Your task to perform on an android device: Go to settings Image 0: 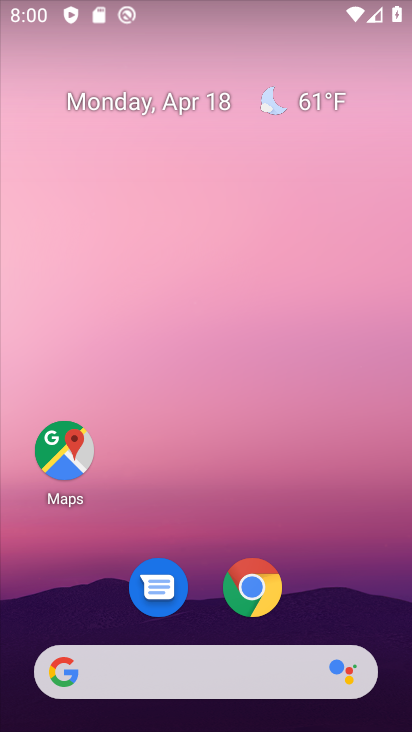
Step 0: click (253, 306)
Your task to perform on an android device: Go to settings Image 1: 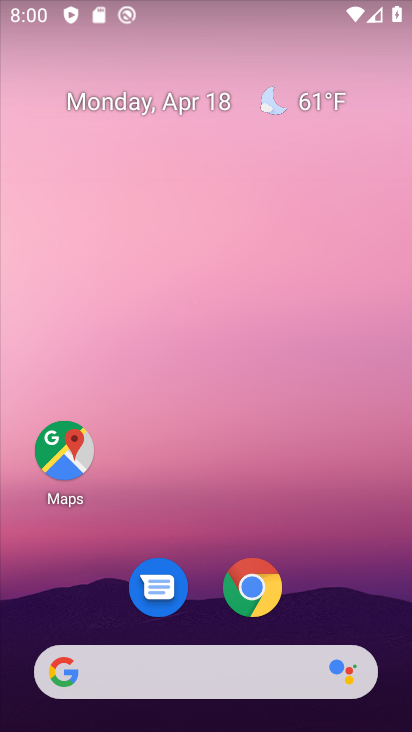
Step 1: drag from (275, 277) to (288, 202)
Your task to perform on an android device: Go to settings Image 2: 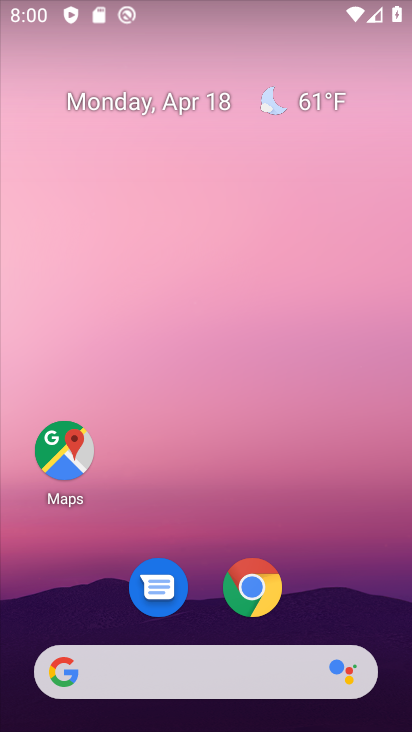
Step 2: drag from (226, 629) to (272, 293)
Your task to perform on an android device: Go to settings Image 3: 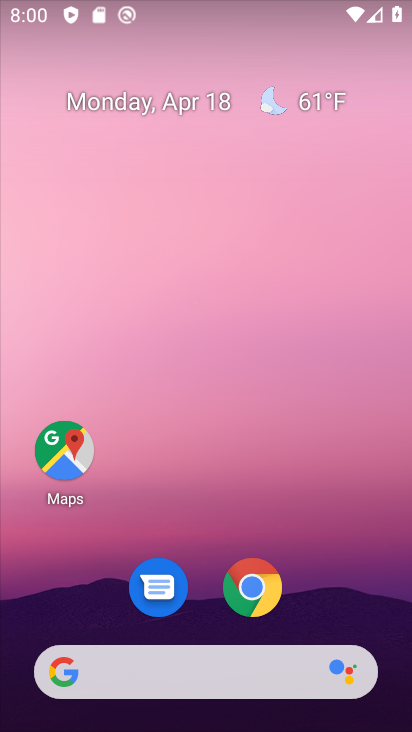
Step 3: drag from (240, 557) to (240, 324)
Your task to perform on an android device: Go to settings Image 4: 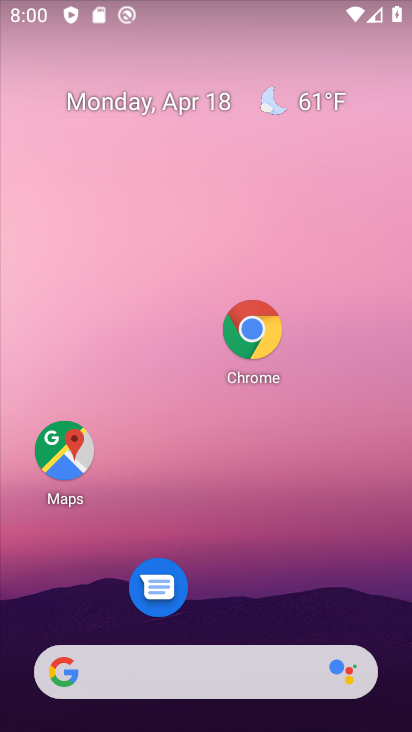
Step 4: click (219, 350)
Your task to perform on an android device: Go to settings Image 5: 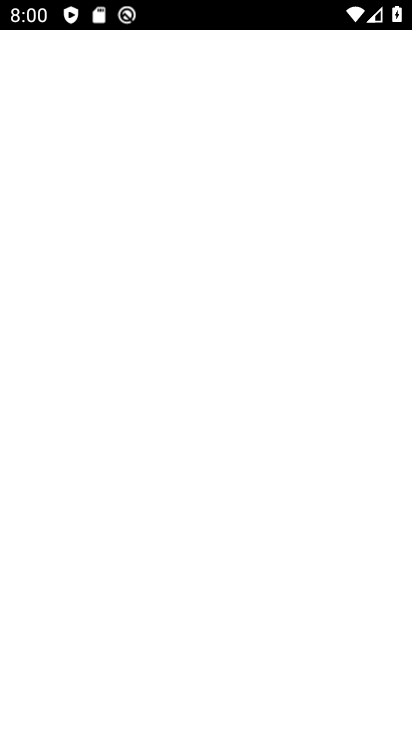
Step 5: click (247, 269)
Your task to perform on an android device: Go to settings Image 6: 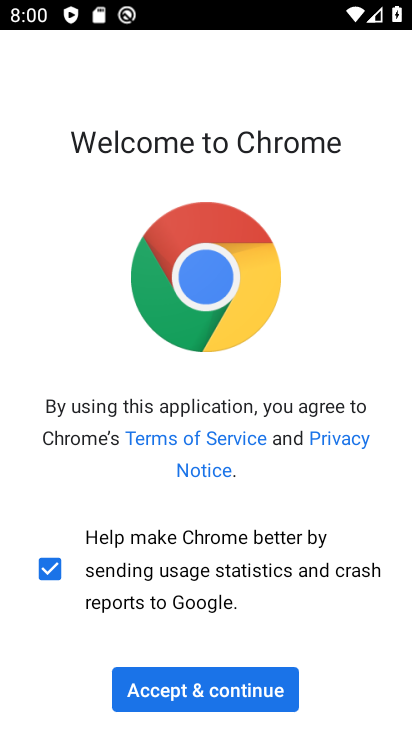
Step 6: press home button
Your task to perform on an android device: Go to settings Image 7: 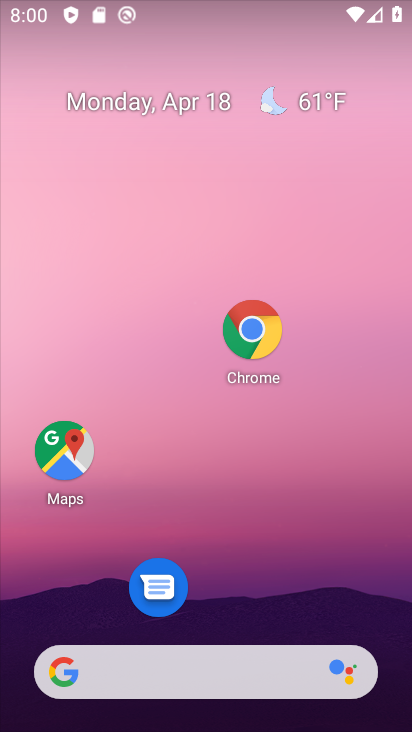
Step 7: drag from (294, 585) to (342, 216)
Your task to perform on an android device: Go to settings Image 8: 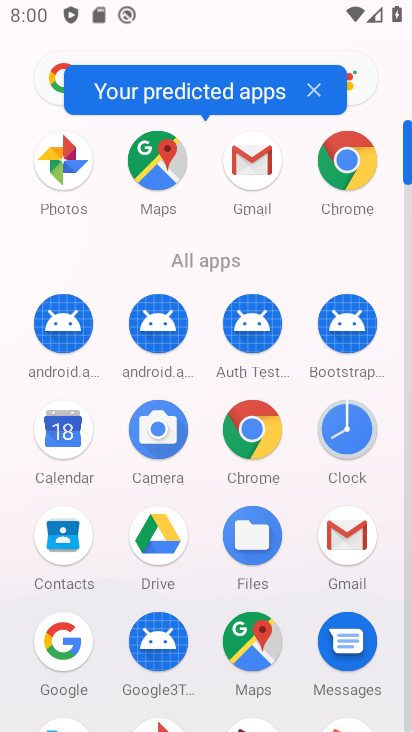
Step 8: drag from (251, 583) to (289, 139)
Your task to perform on an android device: Go to settings Image 9: 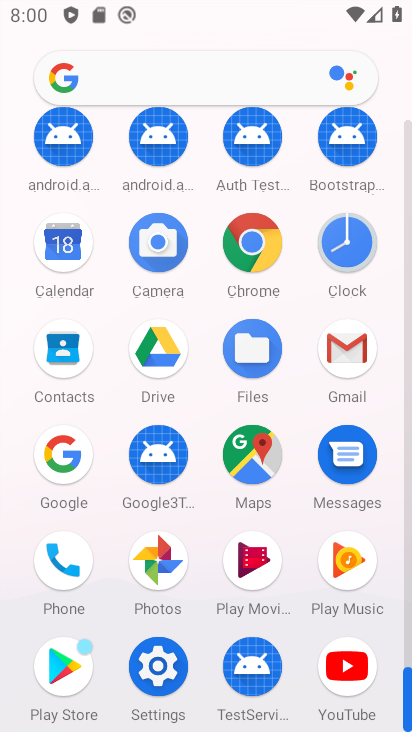
Step 9: click (172, 651)
Your task to perform on an android device: Go to settings Image 10: 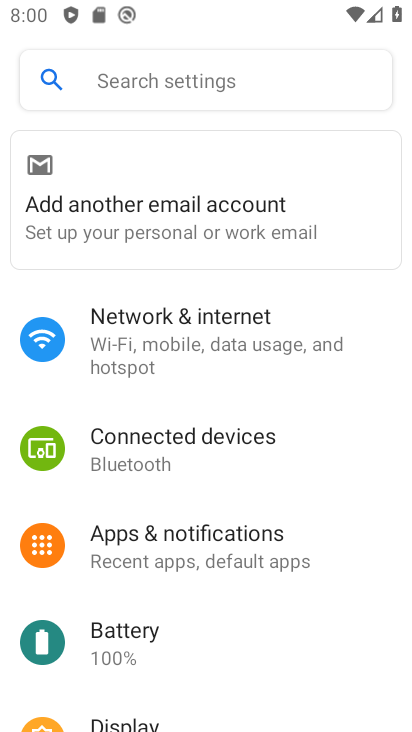
Step 10: task complete